Your task to perform on an android device: remove spam from my inbox in the gmail app Image 0: 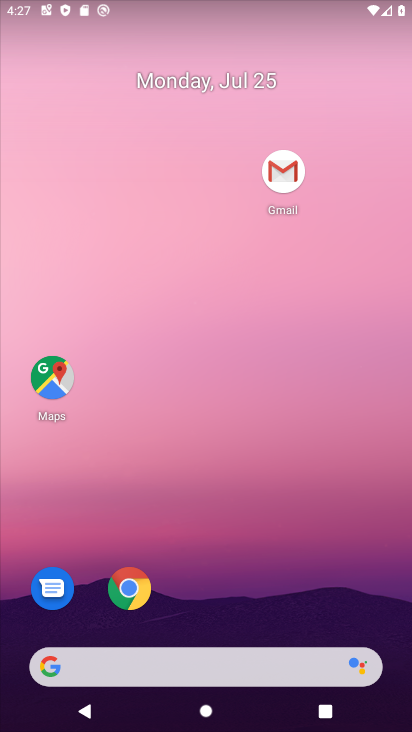
Step 0: drag from (308, 564) to (234, 156)
Your task to perform on an android device: remove spam from my inbox in the gmail app Image 1: 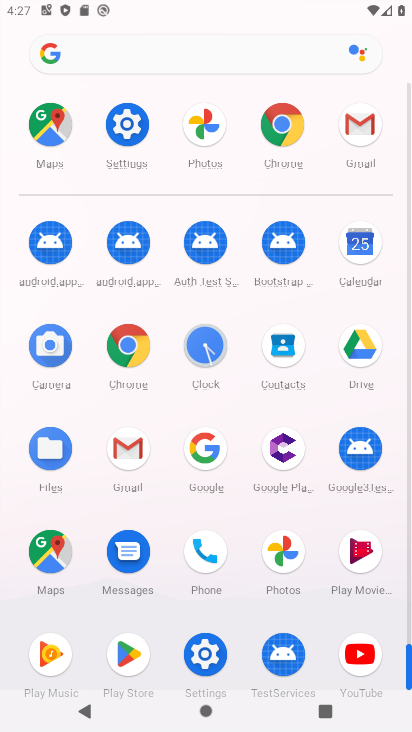
Step 1: click (354, 133)
Your task to perform on an android device: remove spam from my inbox in the gmail app Image 2: 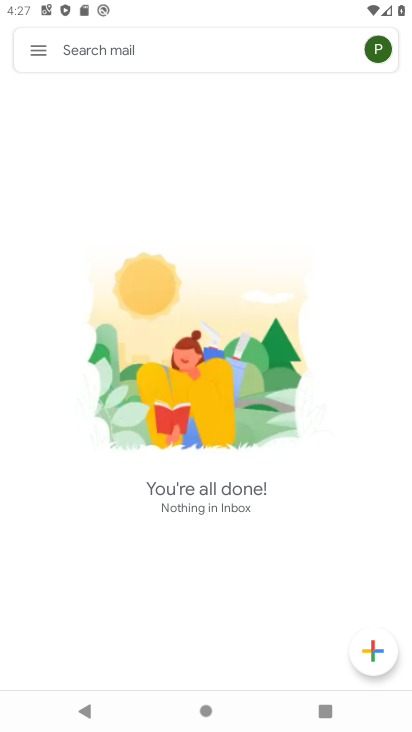
Step 2: click (35, 45)
Your task to perform on an android device: remove spam from my inbox in the gmail app Image 3: 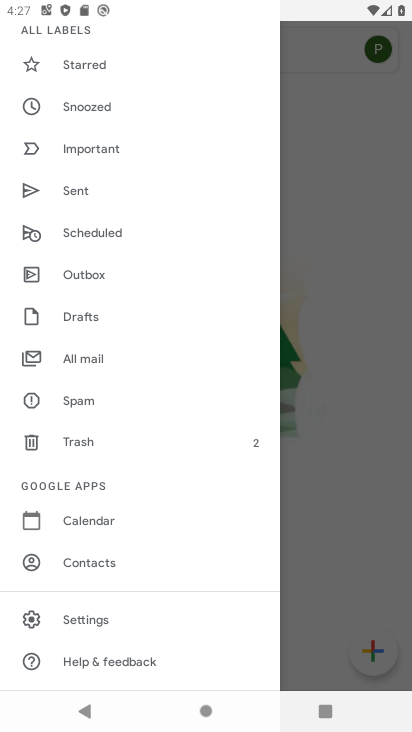
Step 3: click (85, 625)
Your task to perform on an android device: remove spam from my inbox in the gmail app Image 4: 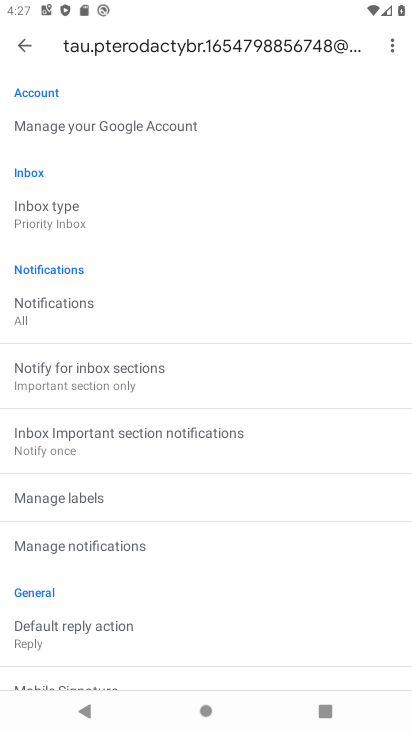
Step 4: click (33, 43)
Your task to perform on an android device: remove spam from my inbox in the gmail app Image 5: 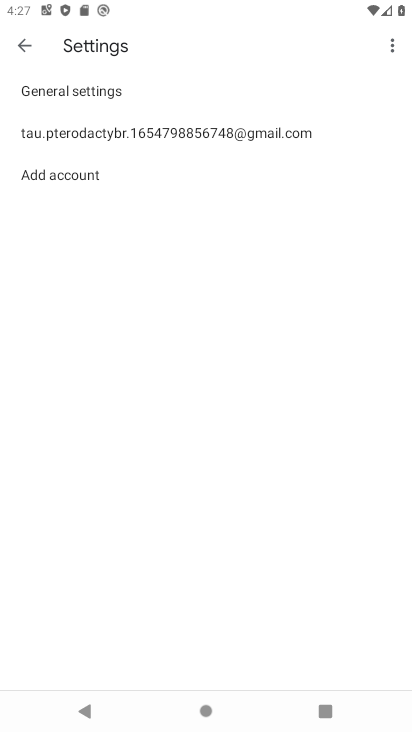
Step 5: click (31, 45)
Your task to perform on an android device: remove spam from my inbox in the gmail app Image 6: 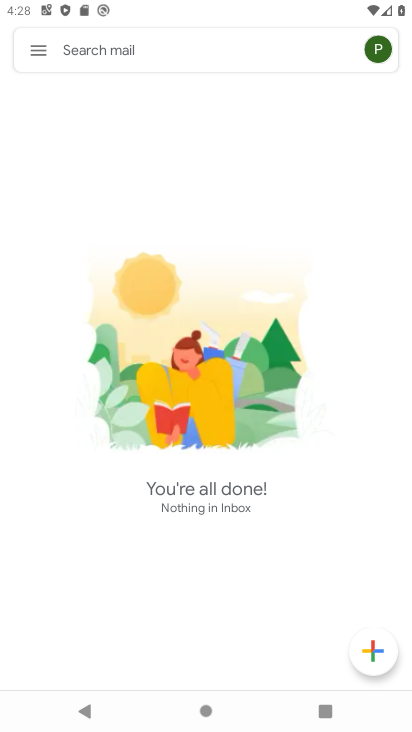
Step 6: click (34, 45)
Your task to perform on an android device: remove spam from my inbox in the gmail app Image 7: 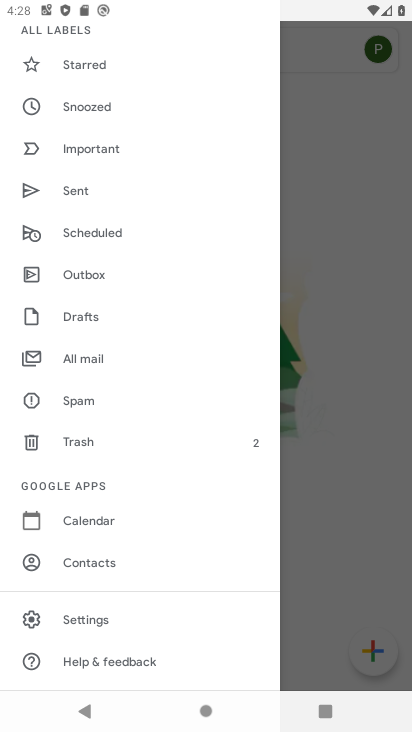
Step 7: click (67, 404)
Your task to perform on an android device: remove spam from my inbox in the gmail app Image 8: 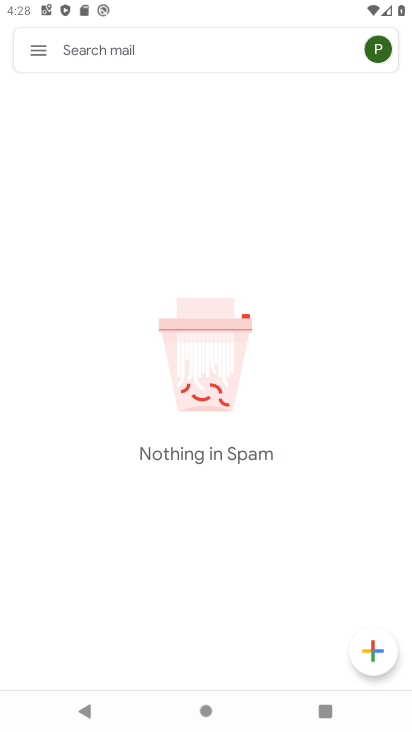
Step 8: task complete